Your task to perform on an android device: toggle airplane mode Image 0: 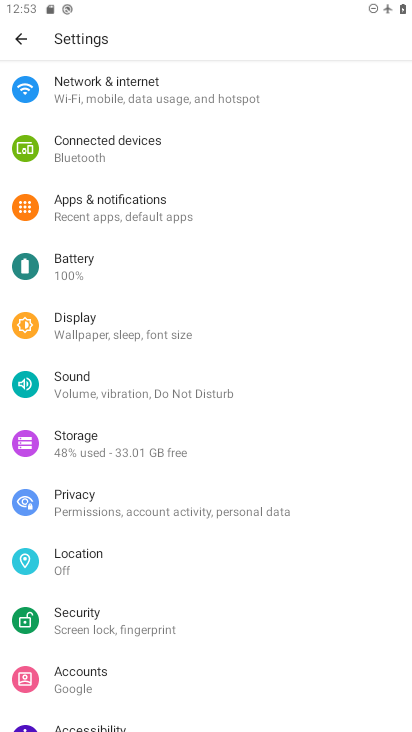
Step 0: click (227, 103)
Your task to perform on an android device: toggle airplane mode Image 1: 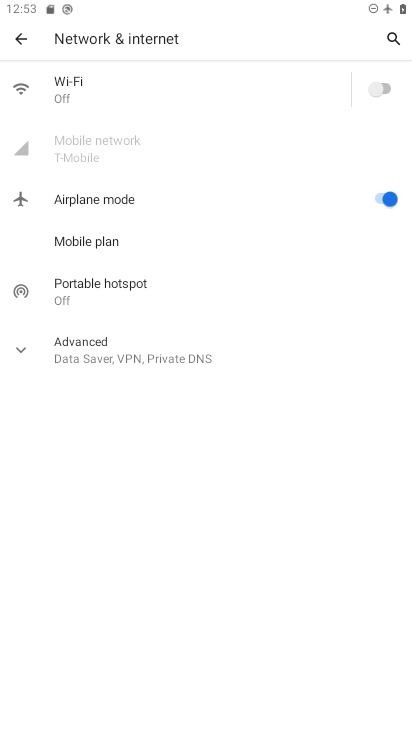
Step 1: click (119, 200)
Your task to perform on an android device: toggle airplane mode Image 2: 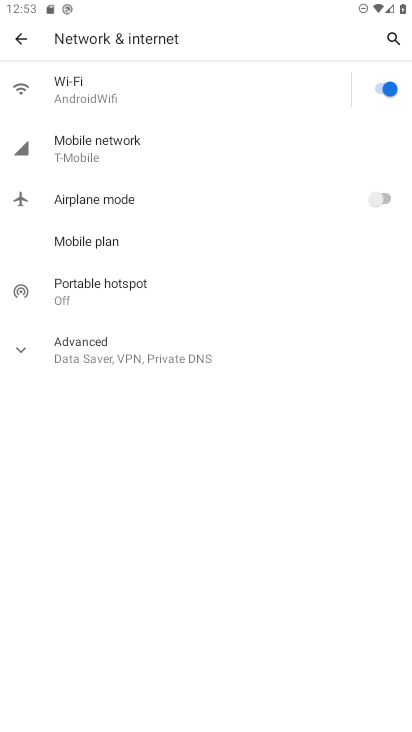
Step 2: task complete